Your task to perform on an android device: install app "Pinterest" Image 0: 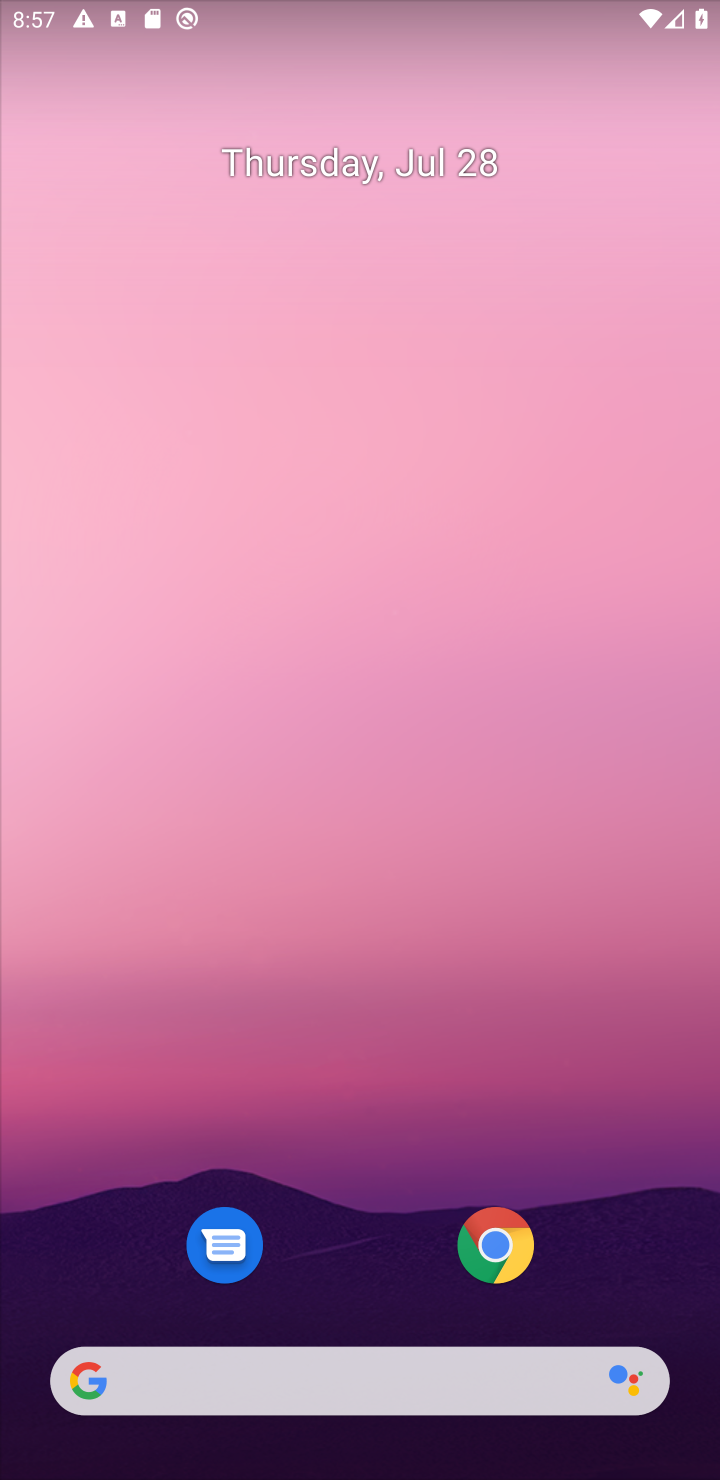
Step 0: drag from (381, 1208) to (549, 30)
Your task to perform on an android device: install app "Pinterest" Image 1: 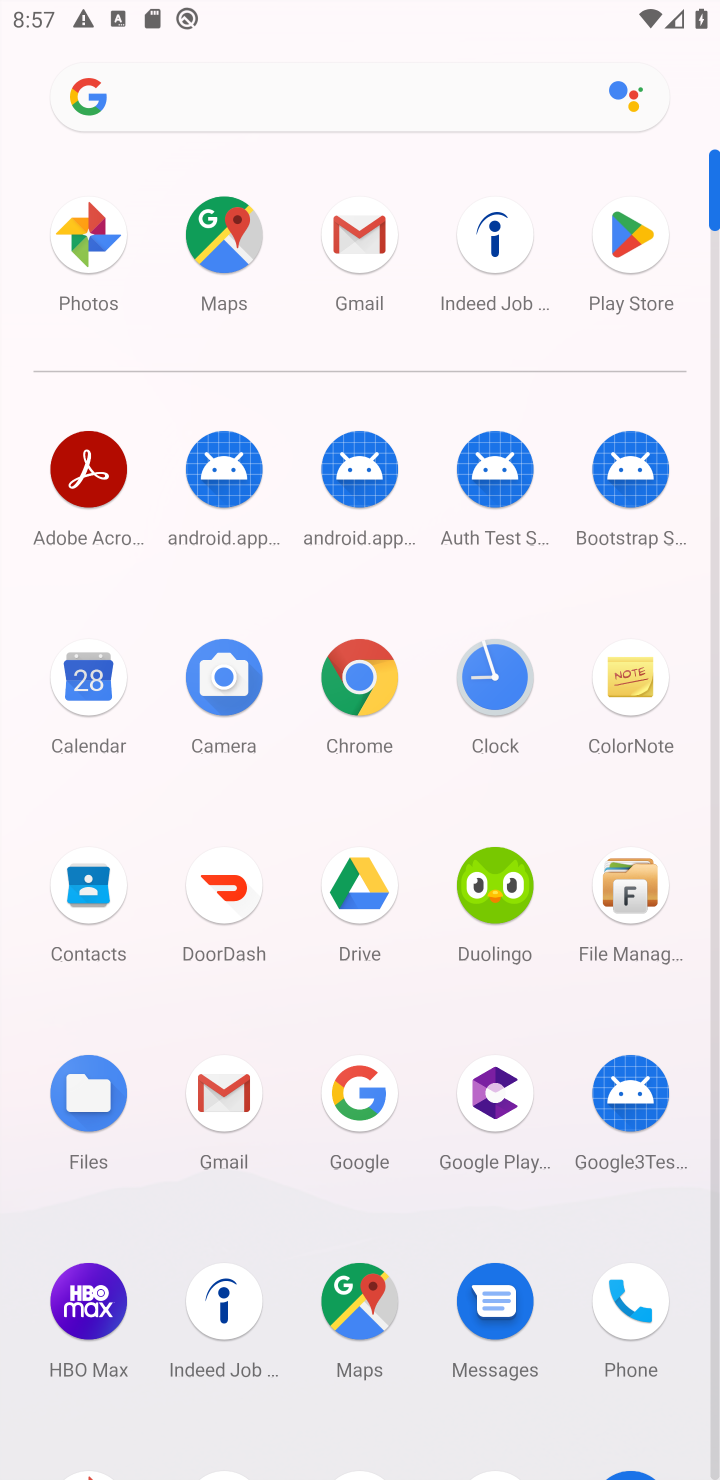
Step 1: click (635, 229)
Your task to perform on an android device: install app "Pinterest" Image 2: 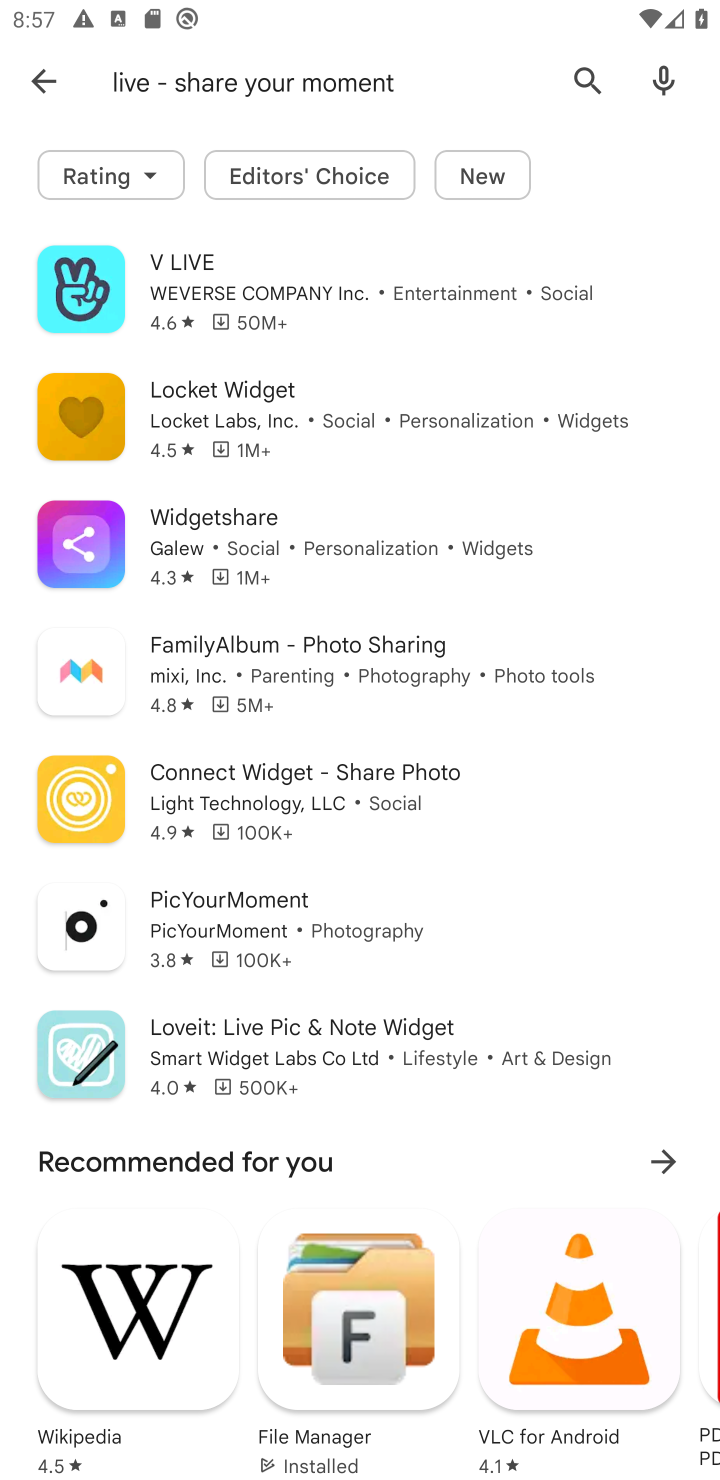
Step 2: click (596, 78)
Your task to perform on an android device: install app "Pinterest" Image 3: 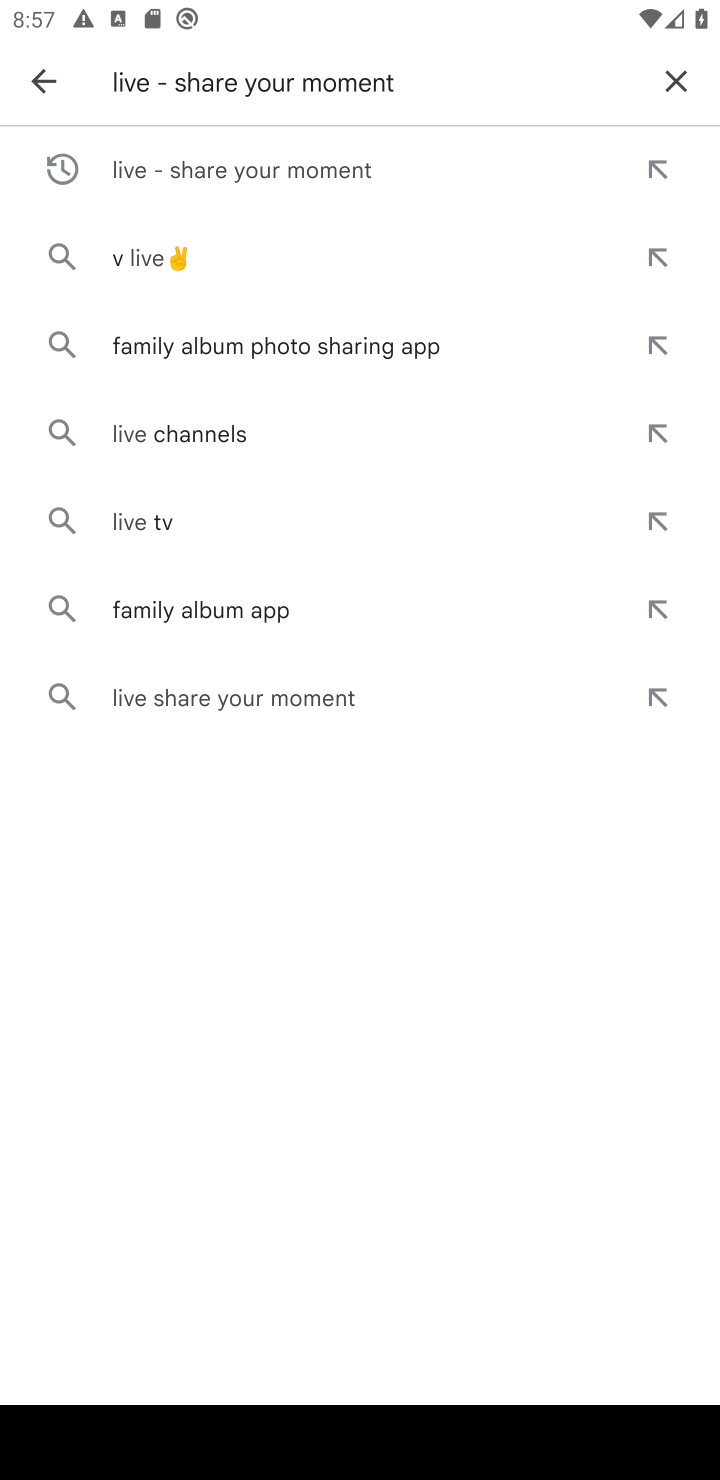
Step 3: click (684, 66)
Your task to perform on an android device: install app "Pinterest" Image 4: 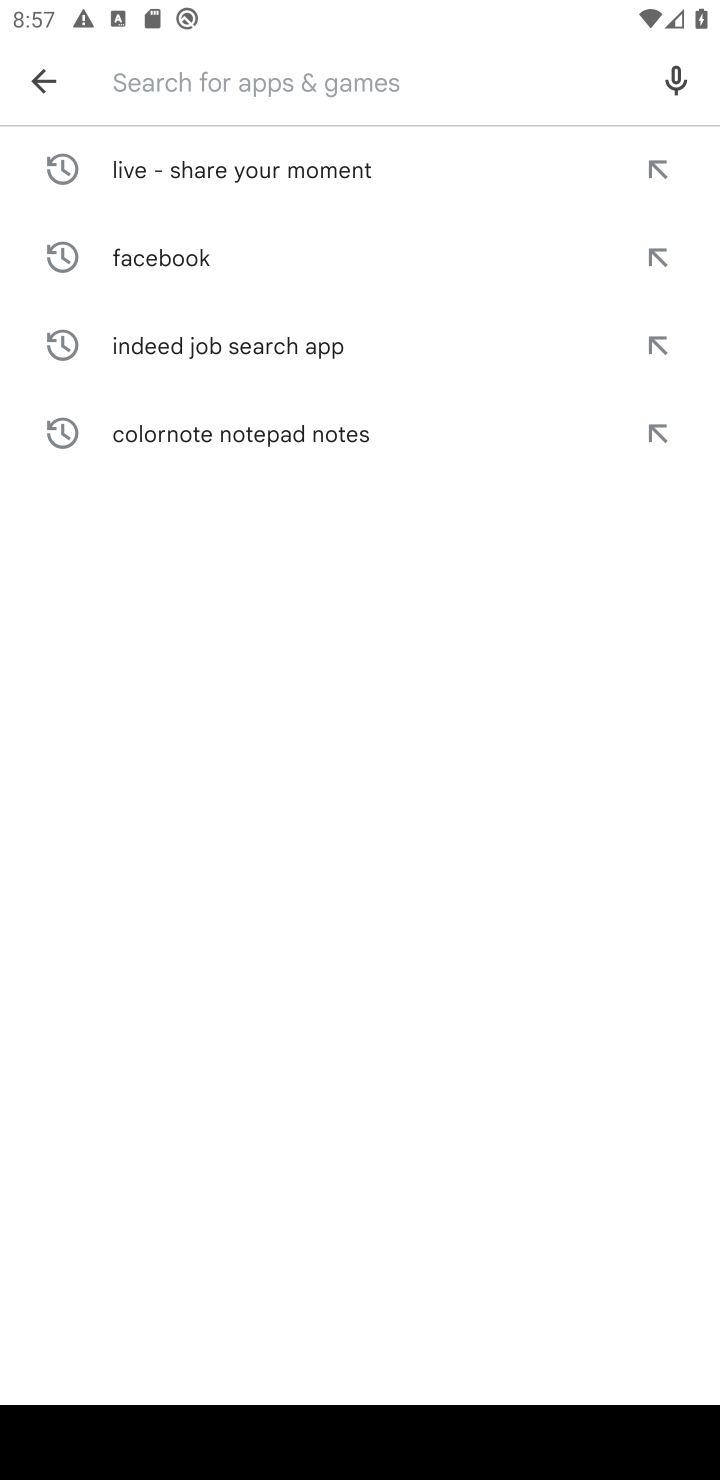
Step 4: type "Pinterest"
Your task to perform on an android device: install app "Pinterest" Image 5: 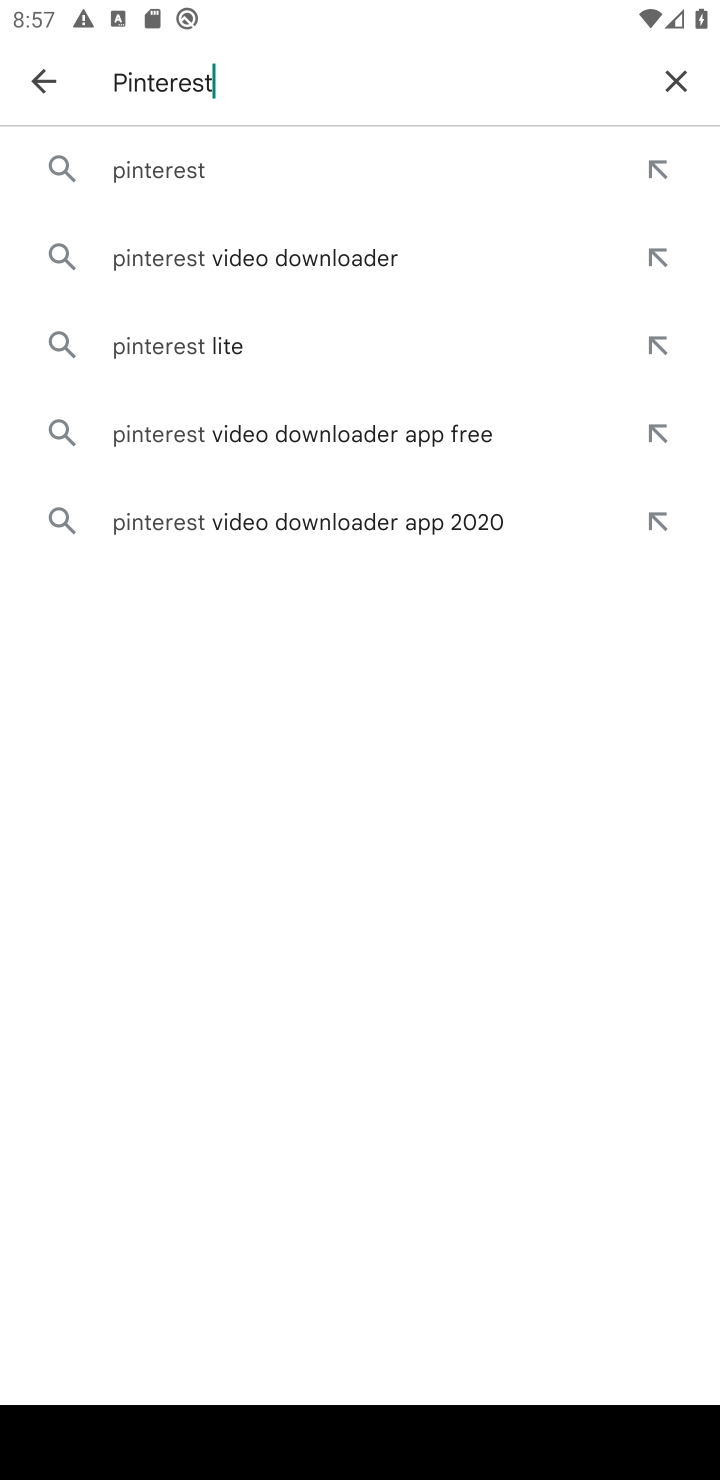
Step 5: click (256, 170)
Your task to perform on an android device: install app "Pinterest" Image 6: 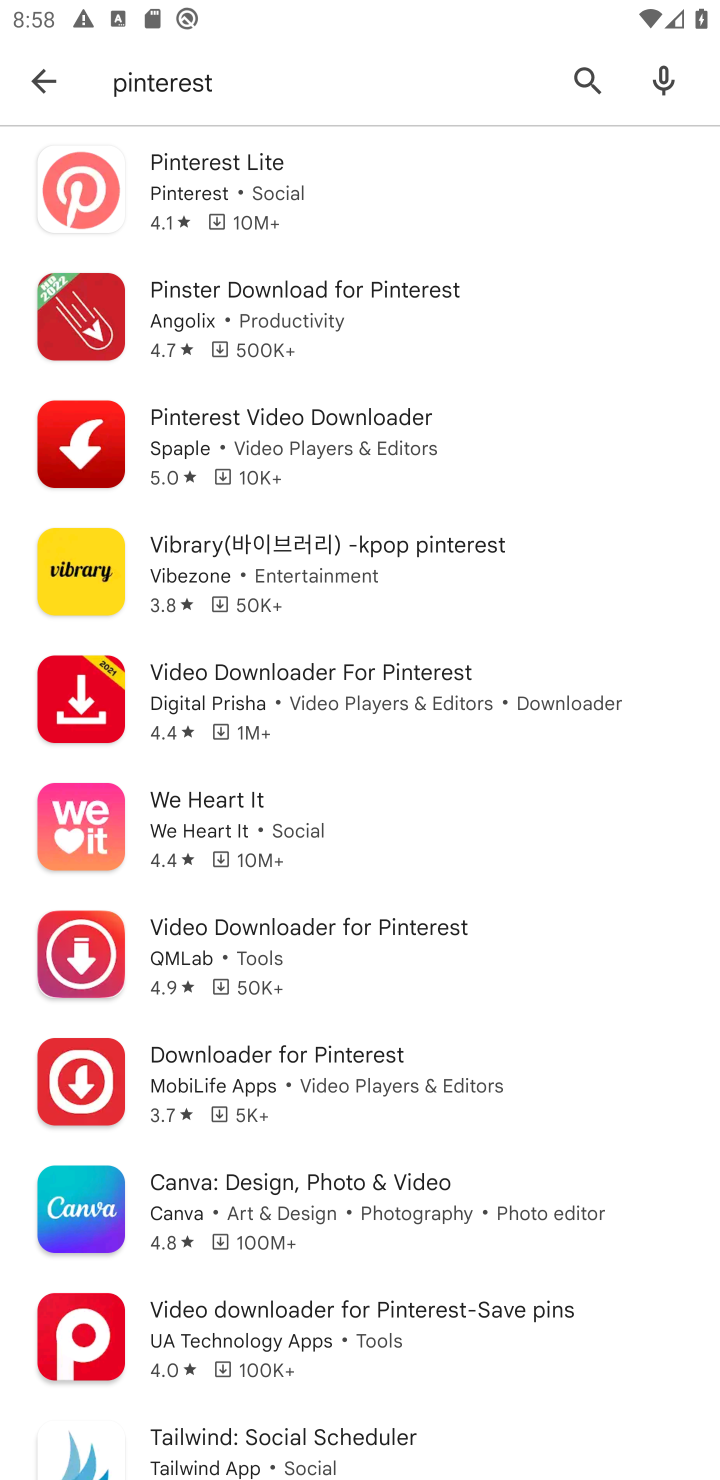
Step 6: task complete